Your task to perform on an android device: Open the web browser Image 0: 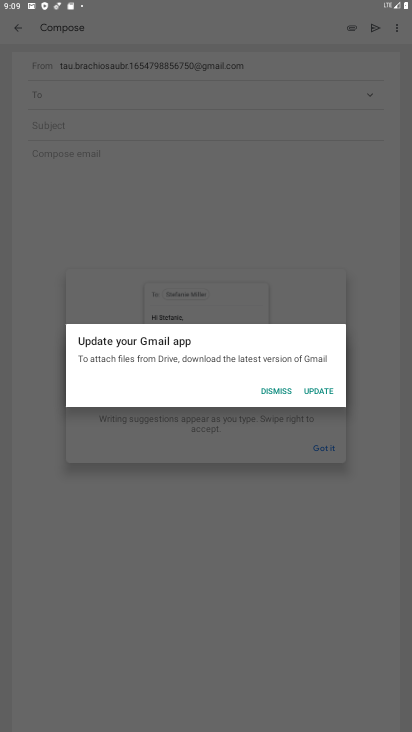
Step 0: press home button
Your task to perform on an android device: Open the web browser Image 1: 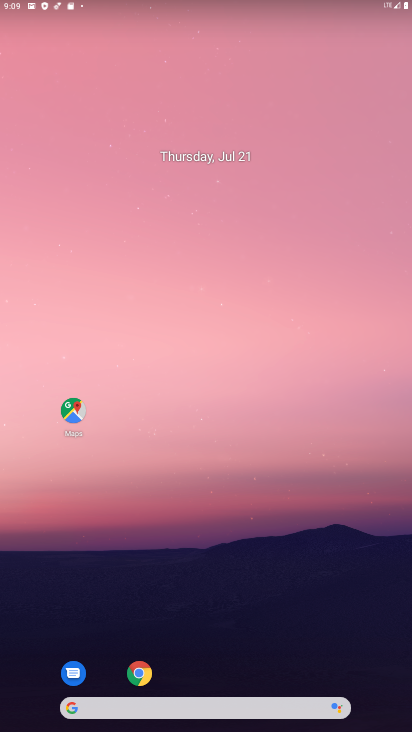
Step 1: drag from (207, 605) to (318, 215)
Your task to perform on an android device: Open the web browser Image 2: 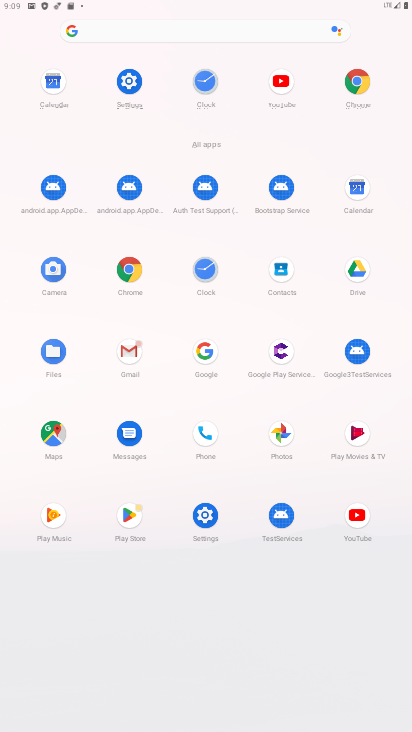
Step 2: click (128, 273)
Your task to perform on an android device: Open the web browser Image 3: 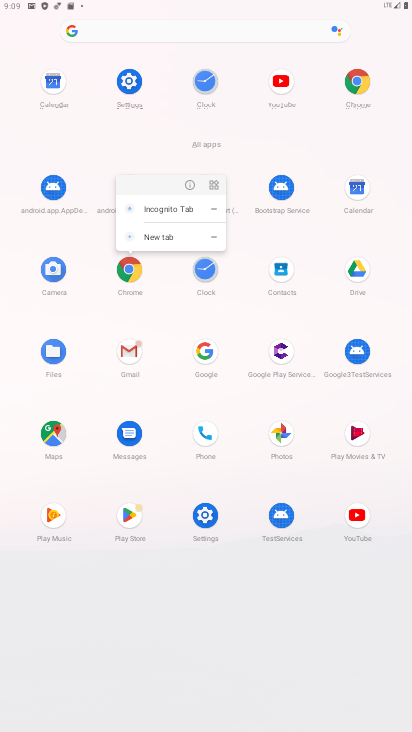
Step 3: click (186, 181)
Your task to perform on an android device: Open the web browser Image 4: 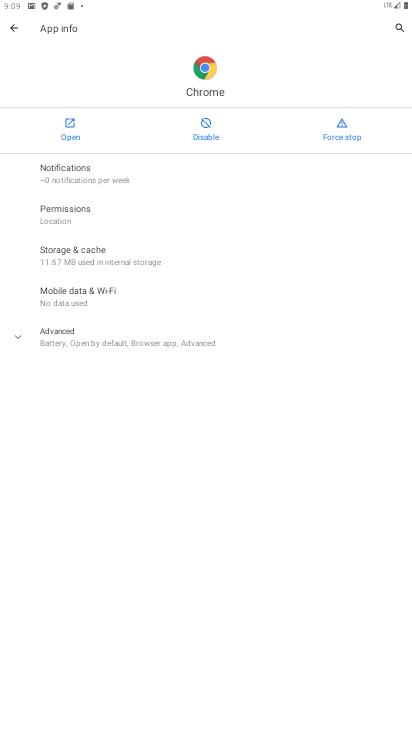
Step 4: click (64, 132)
Your task to perform on an android device: Open the web browser Image 5: 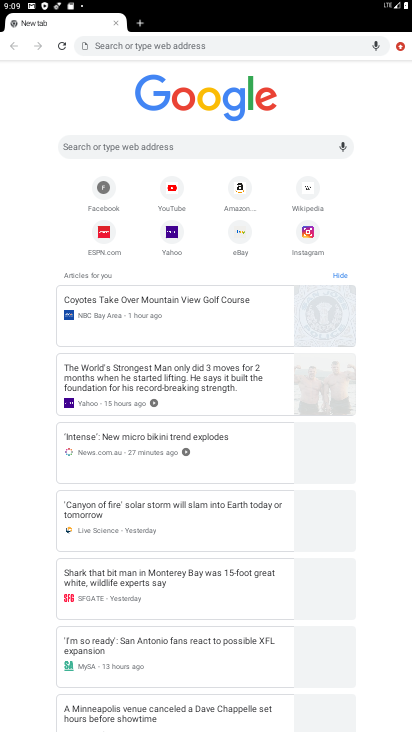
Step 5: task complete